Your task to perform on an android device: allow cookies in the chrome app Image 0: 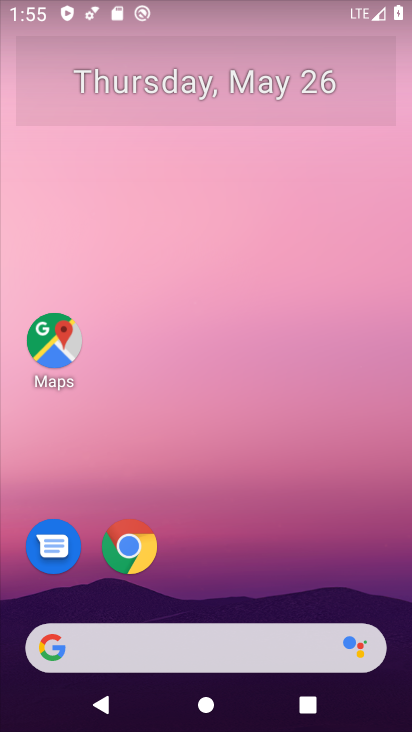
Step 0: click (135, 548)
Your task to perform on an android device: allow cookies in the chrome app Image 1: 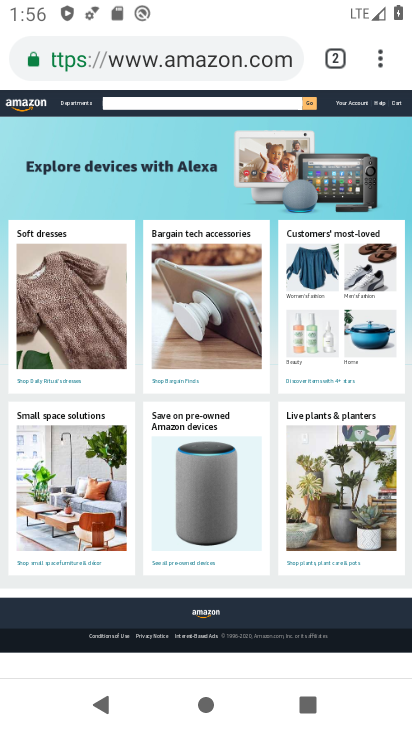
Step 1: click (371, 55)
Your task to perform on an android device: allow cookies in the chrome app Image 2: 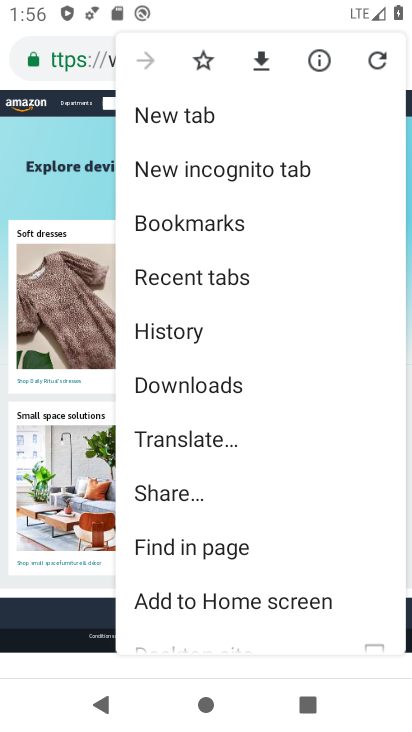
Step 2: drag from (319, 556) to (280, 106)
Your task to perform on an android device: allow cookies in the chrome app Image 3: 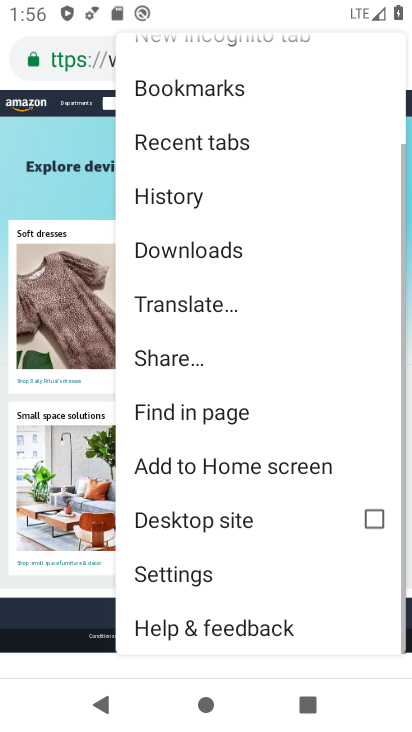
Step 3: click (227, 577)
Your task to perform on an android device: allow cookies in the chrome app Image 4: 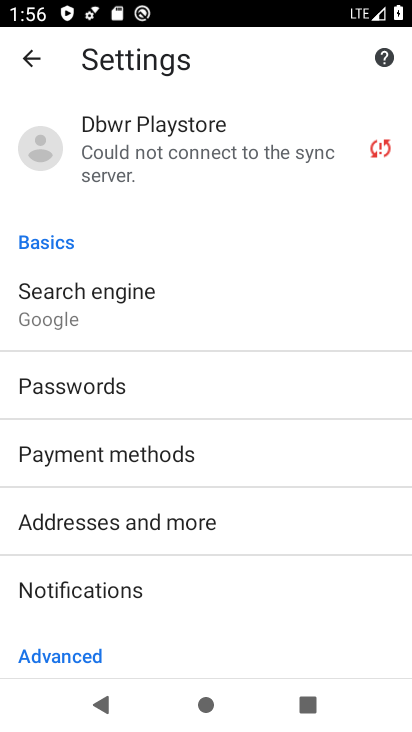
Step 4: drag from (239, 564) to (271, 109)
Your task to perform on an android device: allow cookies in the chrome app Image 5: 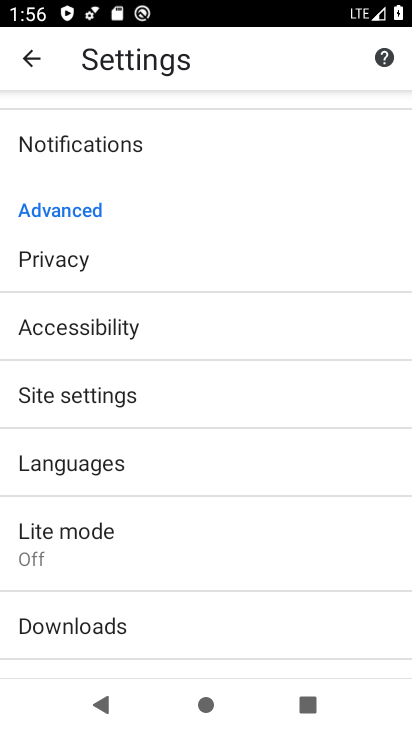
Step 5: click (111, 407)
Your task to perform on an android device: allow cookies in the chrome app Image 6: 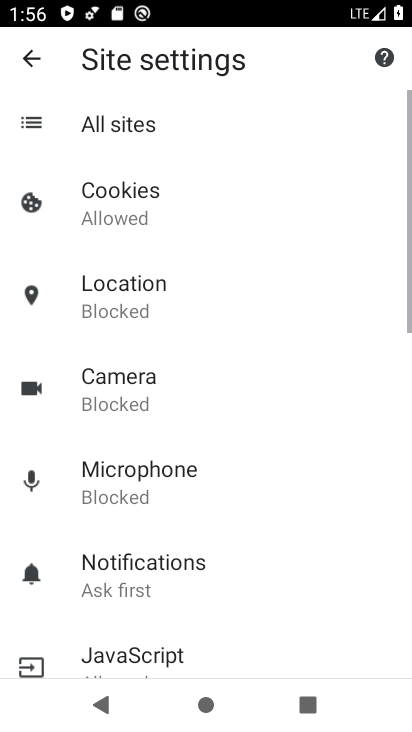
Step 6: click (156, 198)
Your task to perform on an android device: allow cookies in the chrome app Image 7: 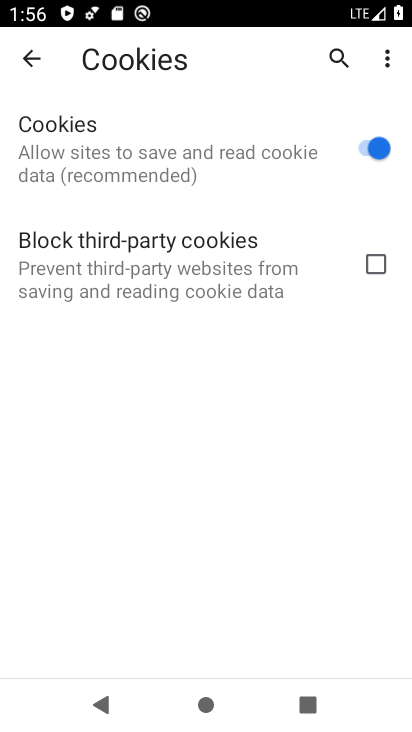
Step 7: task complete